Your task to perform on an android device: all mails in gmail Image 0: 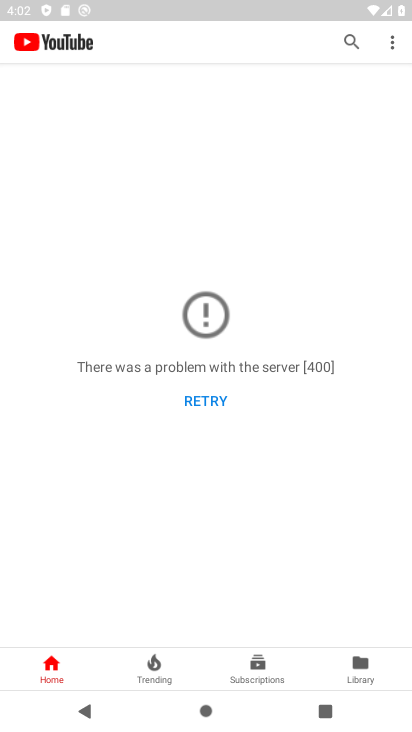
Step 0: press back button
Your task to perform on an android device: all mails in gmail Image 1: 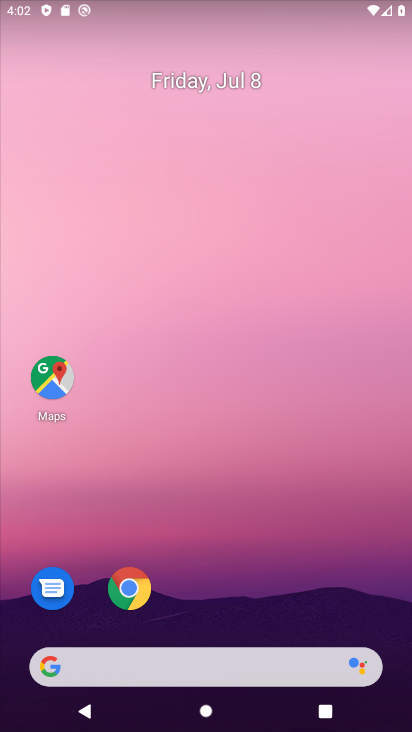
Step 1: drag from (158, 262) to (86, 68)
Your task to perform on an android device: all mails in gmail Image 2: 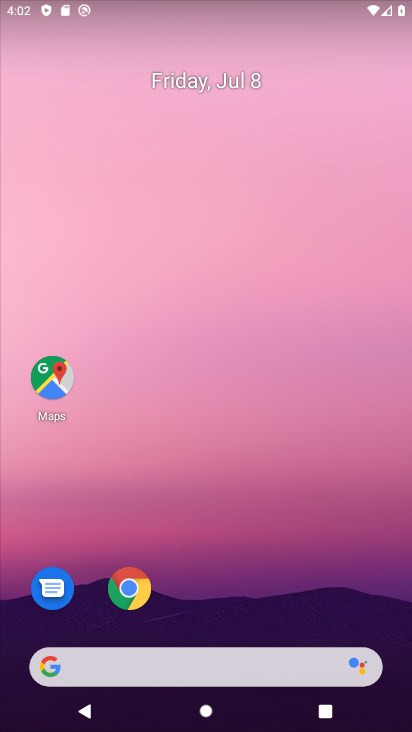
Step 2: drag from (283, 489) to (167, 133)
Your task to perform on an android device: all mails in gmail Image 3: 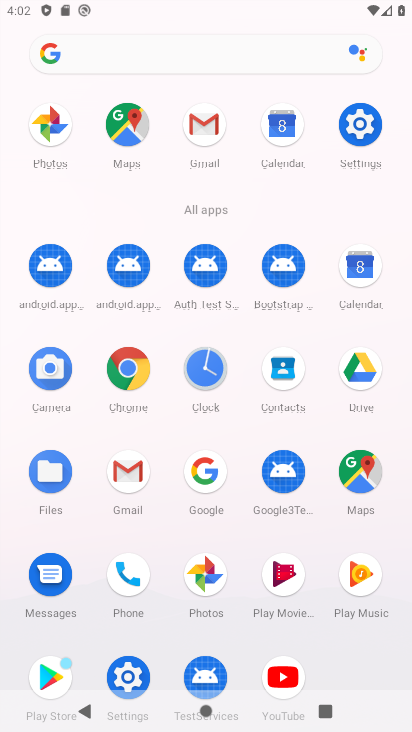
Step 3: drag from (190, 527) to (142, 243)
Your task to perform on an android device: all mails in gmail Image 4: 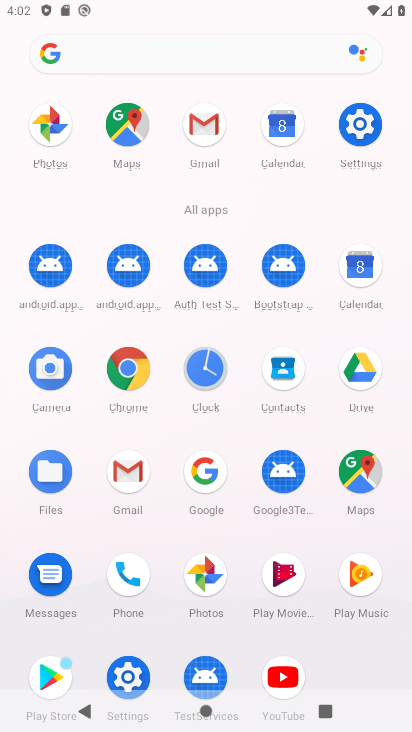
Step 4: click (131, 471)
Your task to perform on an android device: all mails in gmail Image 5: 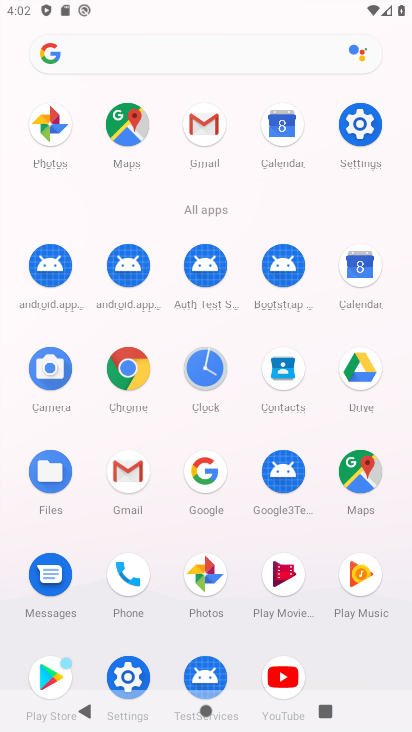
Step 5: click (131, 466)
Your task to perform on an android device: all mails in gmail Image 6: 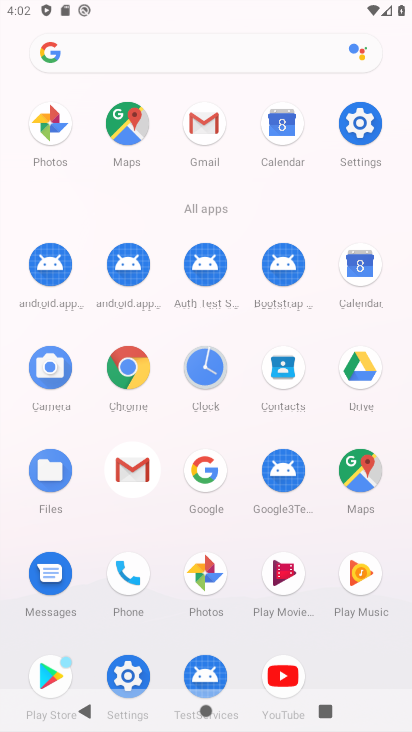
Step 6: click (131, 466)
Your task to perform on an android device: all mails in gmail Image 7: 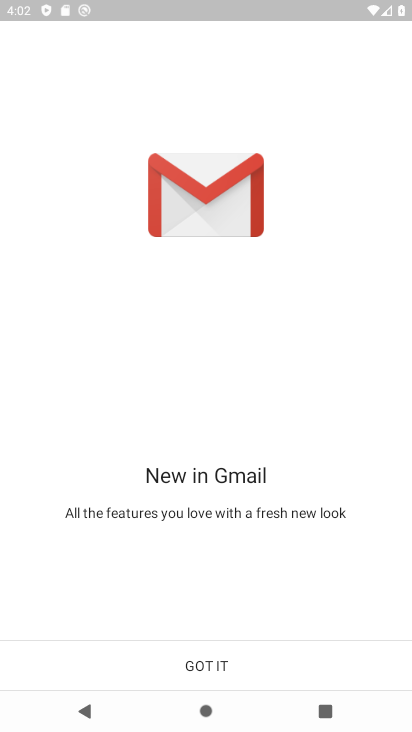
Step 7: click (131, 459)
Your task to perform on an android device: all mails in gmail Image 8: 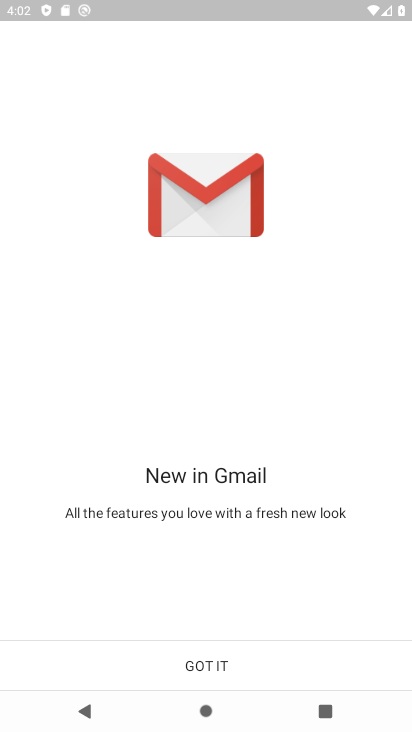
Step 8: click (230, 663)
Your task to perform on an android device: all mails in gmail Image 9: 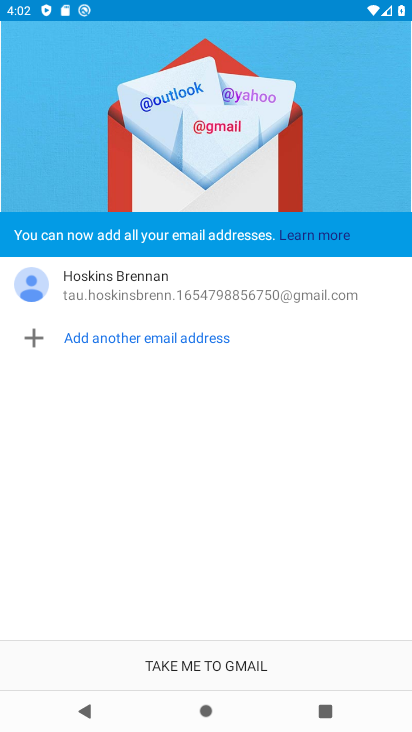
Step 9: click (245, 665)
Your task to perform on an android device: all mails in gmail Image 10: 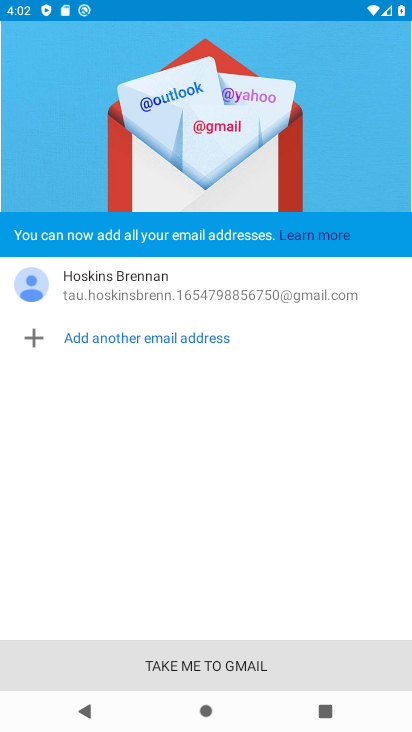
Step 10: click (245, 665)
Your task to perform on an android device: all mails in gmail Image 11: 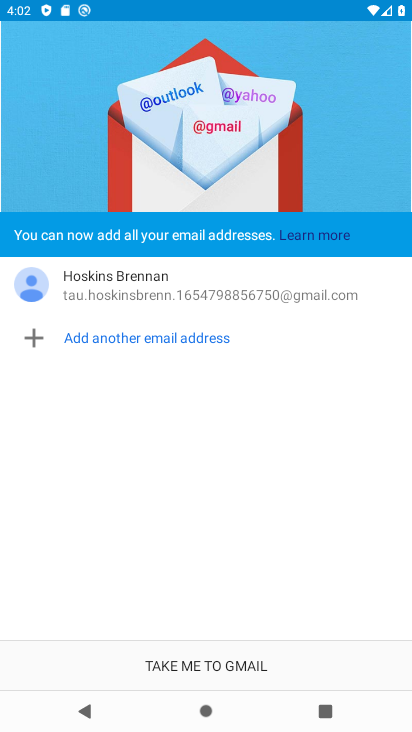
Step 11: click (251, 666)
Your task to perform on an android device: all mails in gmail Image 12: 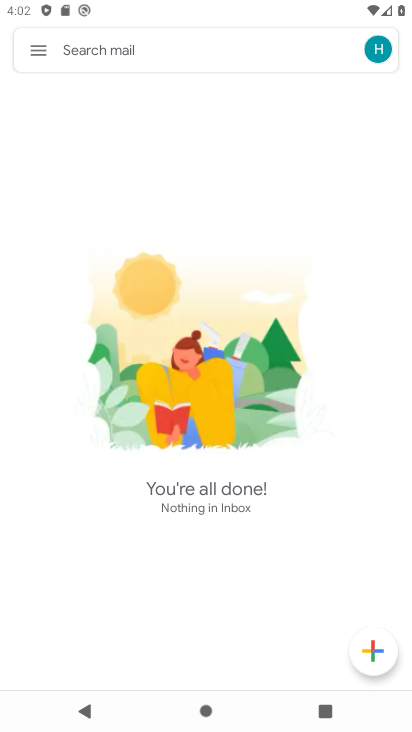
Step 12: task complete